Your task to perform on an android device: turn on sleep mode Image 0: 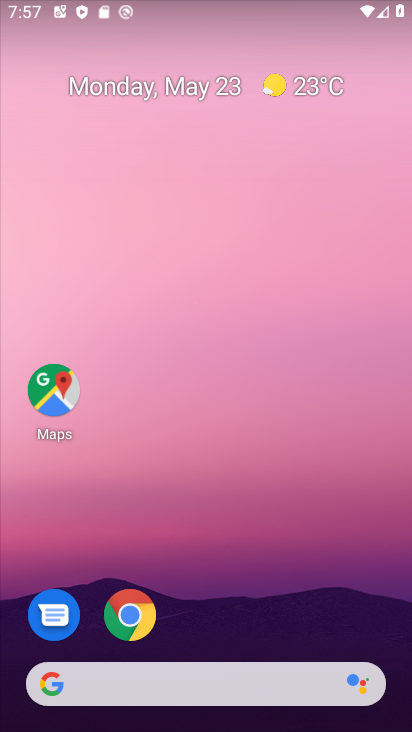
Step 0: drag from (253, 593) to (262, 133)
Your task to perform on an android device: turn on sleep mode Image 1: 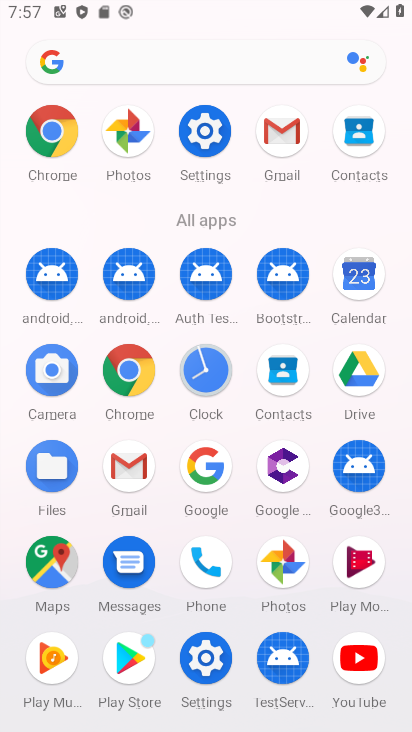
Step 1: click (205, 129)
Your task to perform on an android device: turn on sleep mode Image 2: 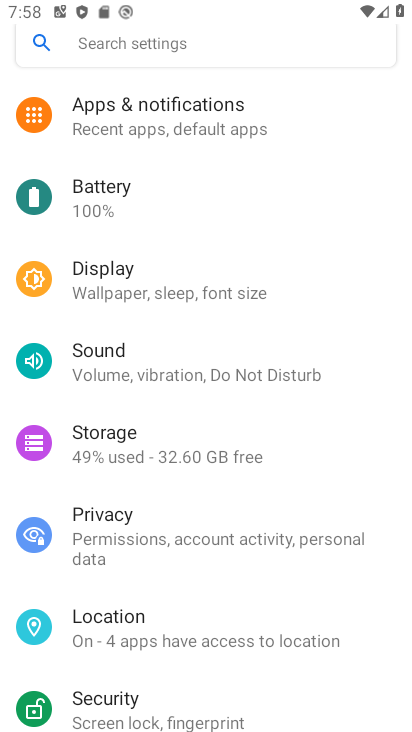
Step 2: click (189, 300)
Your task to perform on an android device: turn on sleep mode Image 3: 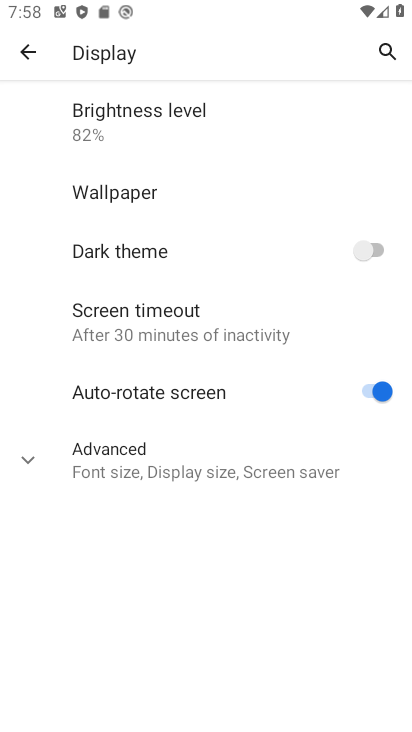
Step 3: click (144, 464)
Your task to perform on an android device: turn on sleep mode Image 4: 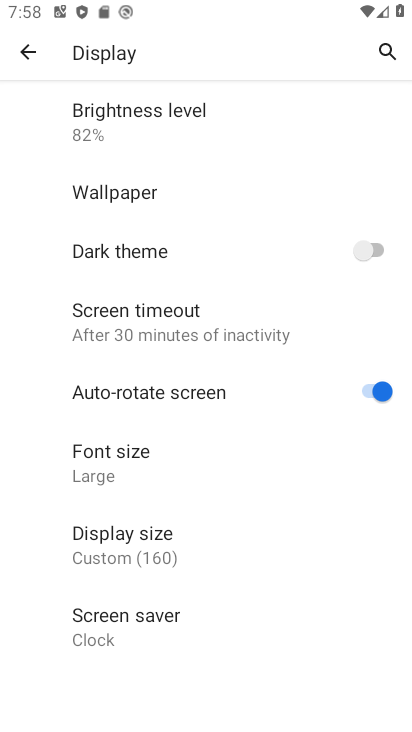
Step 4: click (134, 341)
Your task to perform on an android device: turn on sleep mode Image 5: 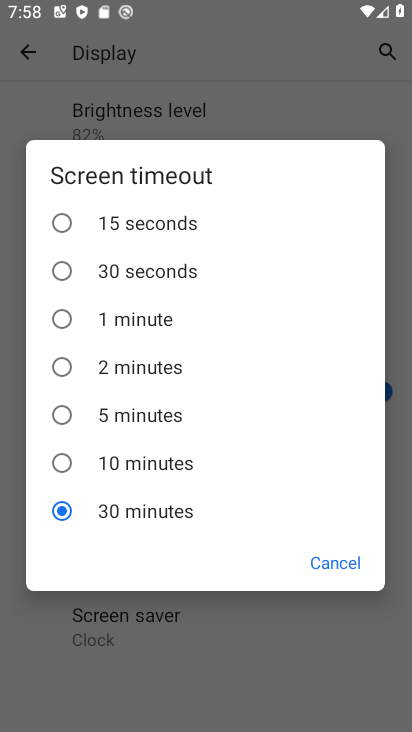
Step 5: click (355, 558)
Your task to perform on an android device: turn on sleep mode Image 6: 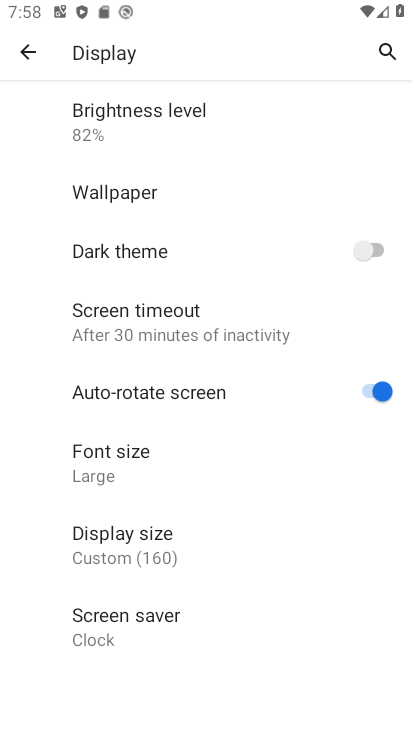
Step 6: task complete